Your task to perform on an android device: see creations saved in the google photos Image 0: 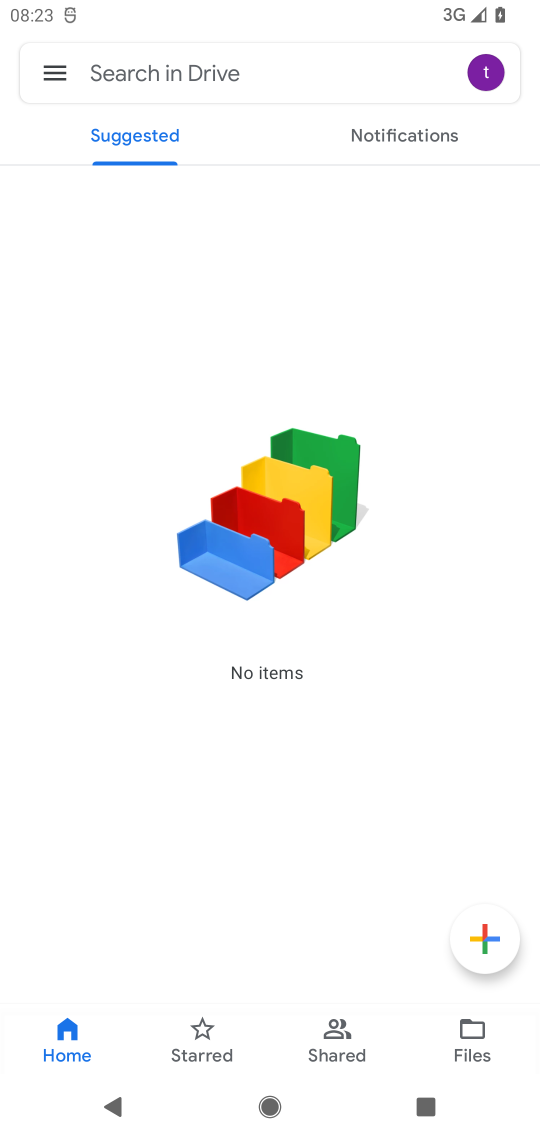
Step 0: press home button
Your task to perform on an android device: see creations saved in the google photos Image 1: 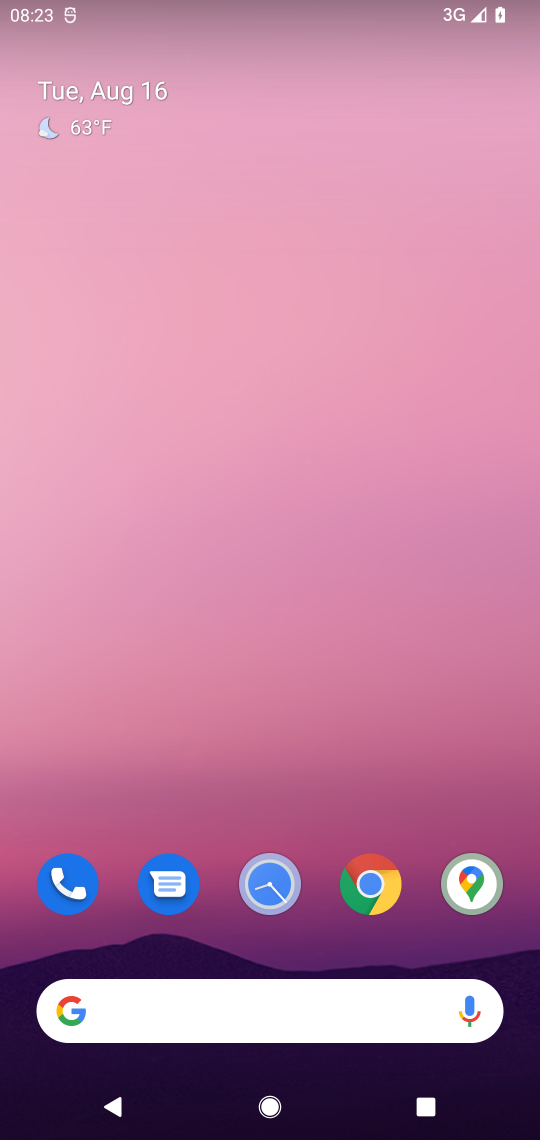
Step 1: drag from (293, 825) to (284, 77)
Your task to perform on an android device: see creations saved in the google photos Image 2: 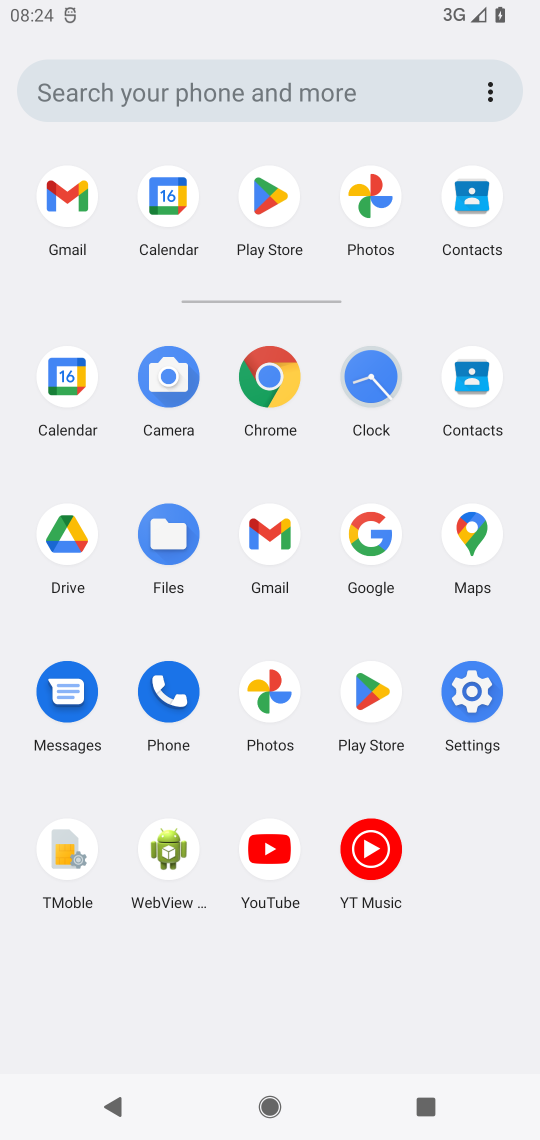
Step 2: click (360, 193)
Your task to perform on an android device: see creations saved in the google photos Image 3: 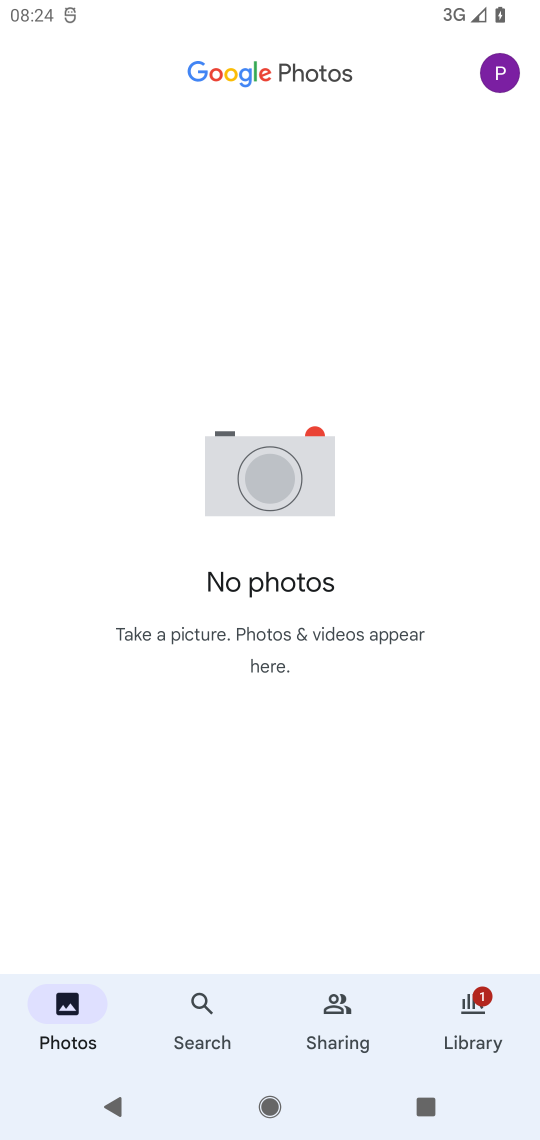
Step 3: click (474, 1006)
Your task to perform on an android device: see creations saved in the google photos Image 4: 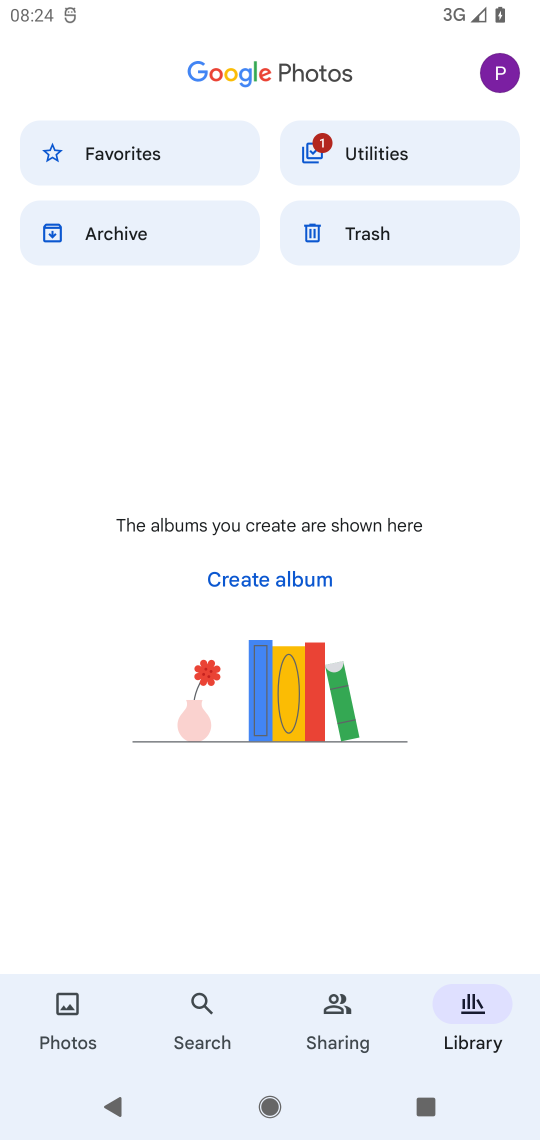
Step 4: drag from (394, 826) to (357, 330)
Your task to perform on an android device: see creations saved in the google photos Image 5: 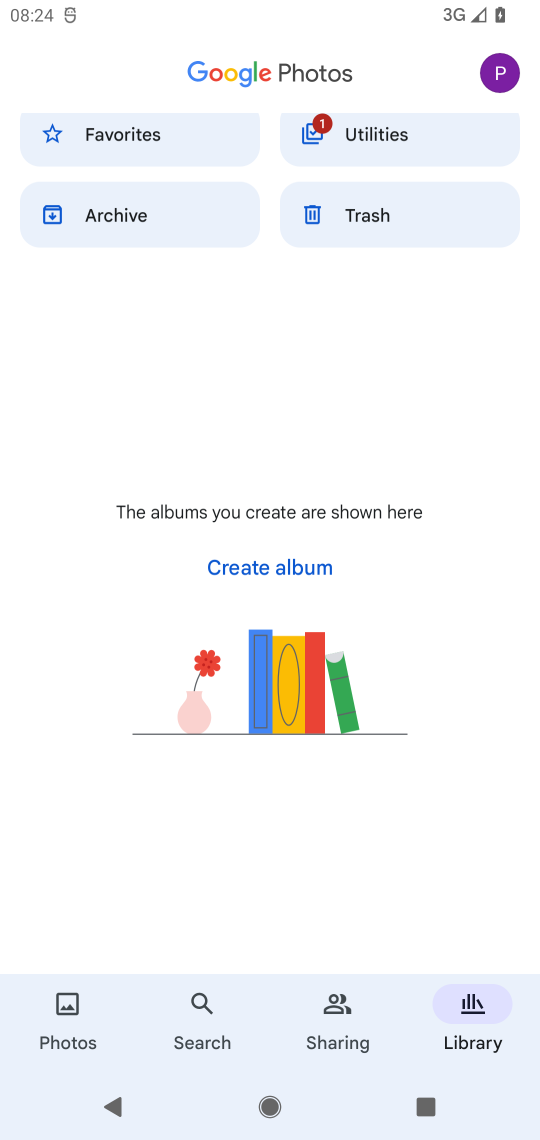
Step 5: click (50, 1015)
Your task to perform on an android device: see creations saved in the google photos Image 6: 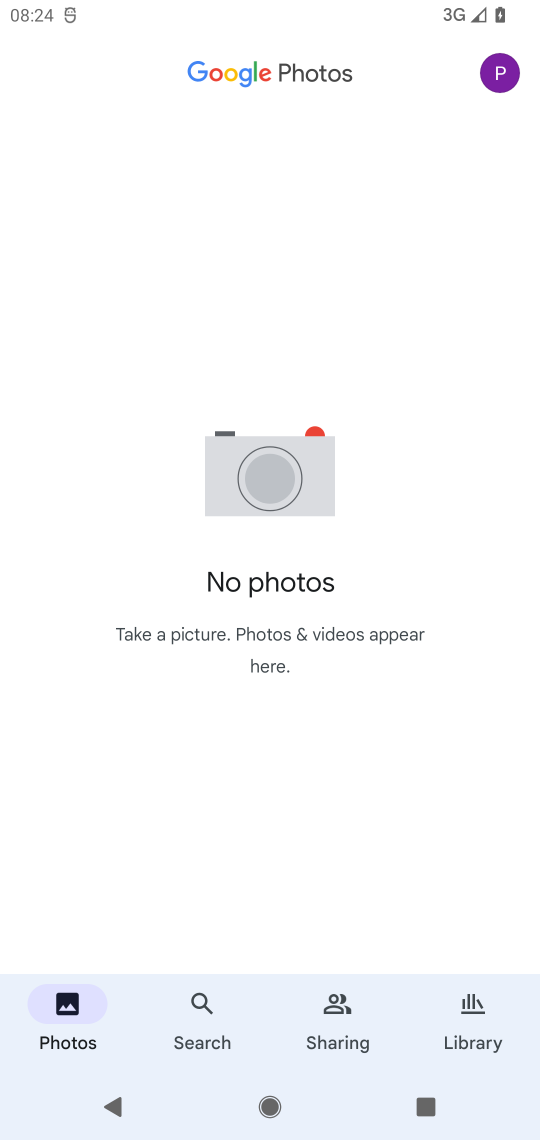
Step 6: drag from (401, 795) to (395, 405)
Your task to perform on an android device: see creations saved in the google photos Image 7: 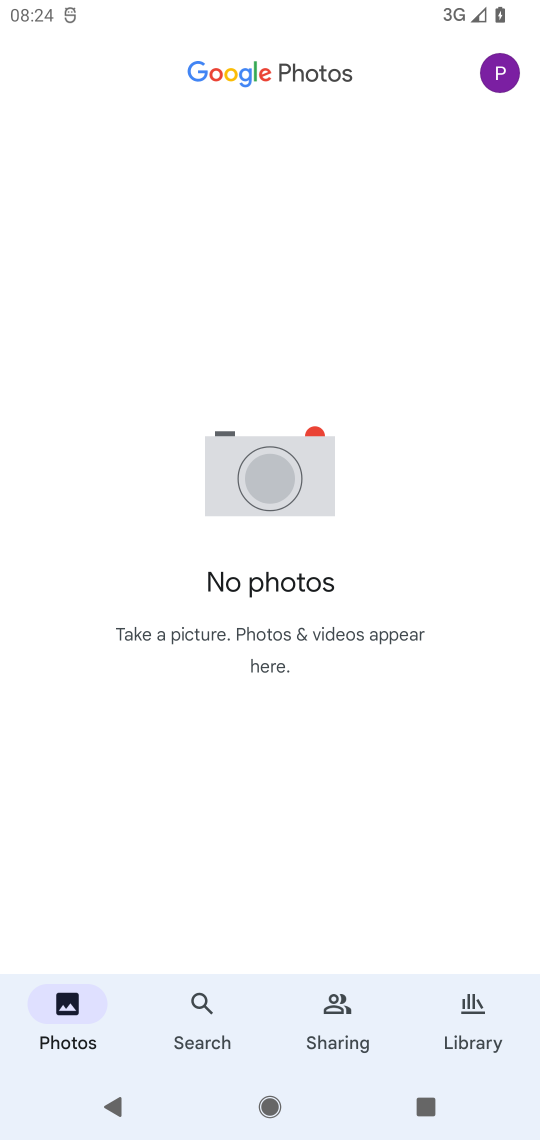
Step 7: click (330, 1026)
Your task to perform on an android device: see creations saved in the google photos Image 8: 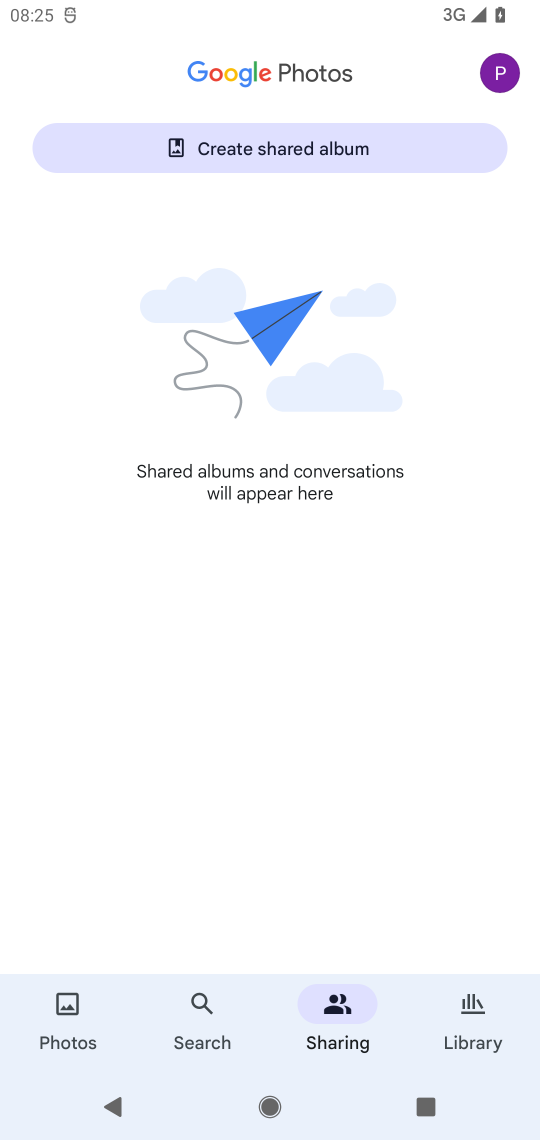
Step 8: task complete